Your task to perform on an android device: Search for logitech g903 on bestbuy, select the first entry, and add it to the cart. Image 0: 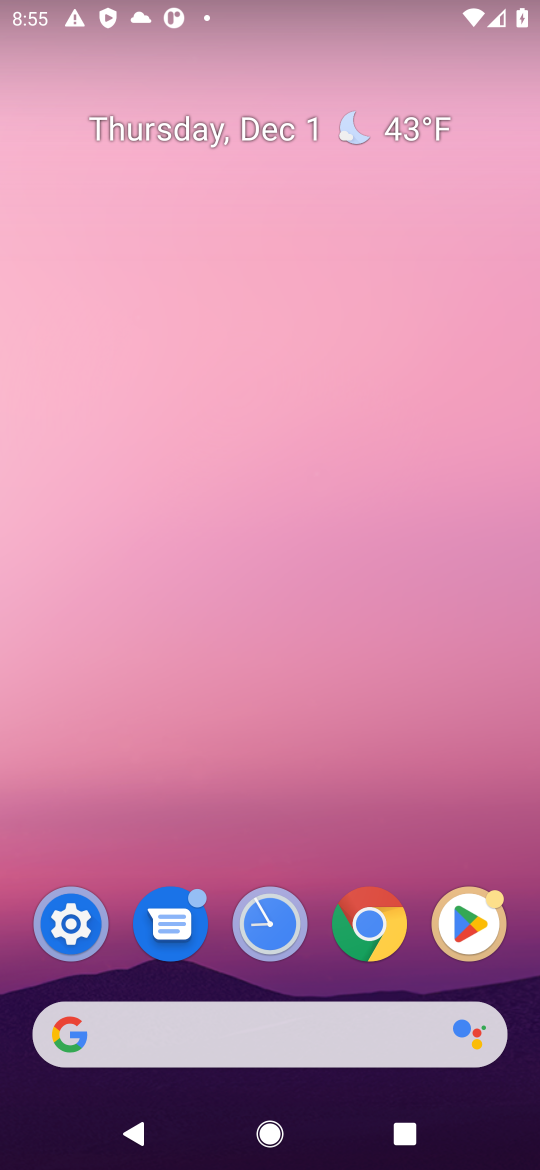
Step 0: click (367, 1019)
Your task to perform on an android device: Search for logitech g903 on bestbuy, select the first entry, and add it to the cart. Image 1: 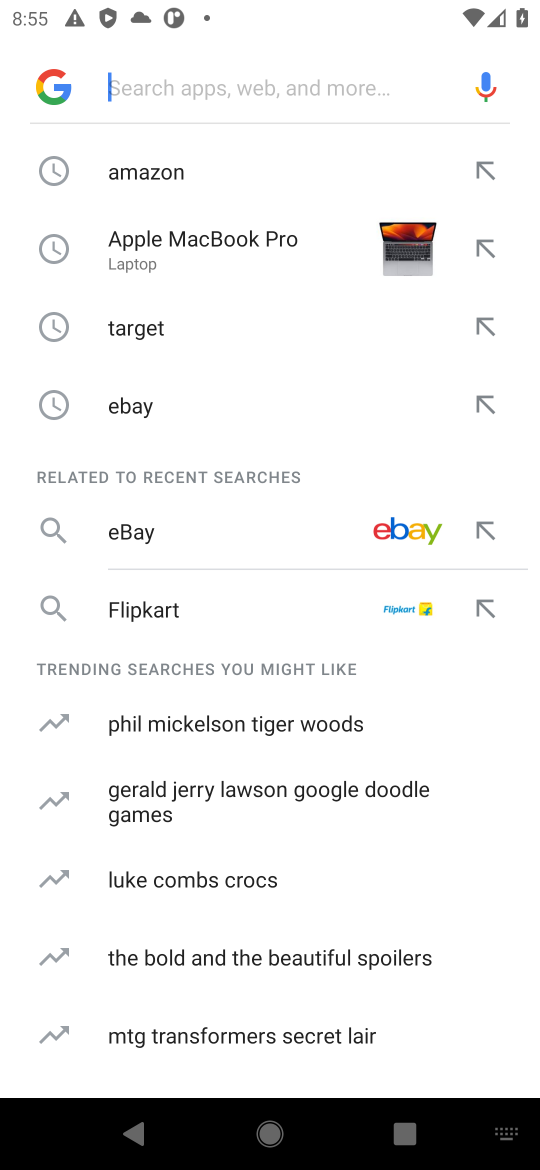
Step 1: type "bestbuy"
Your task to perform on an android device: Search for logitech g903 on bestbuy, select the first entry, and add it to the cart. Image 2: 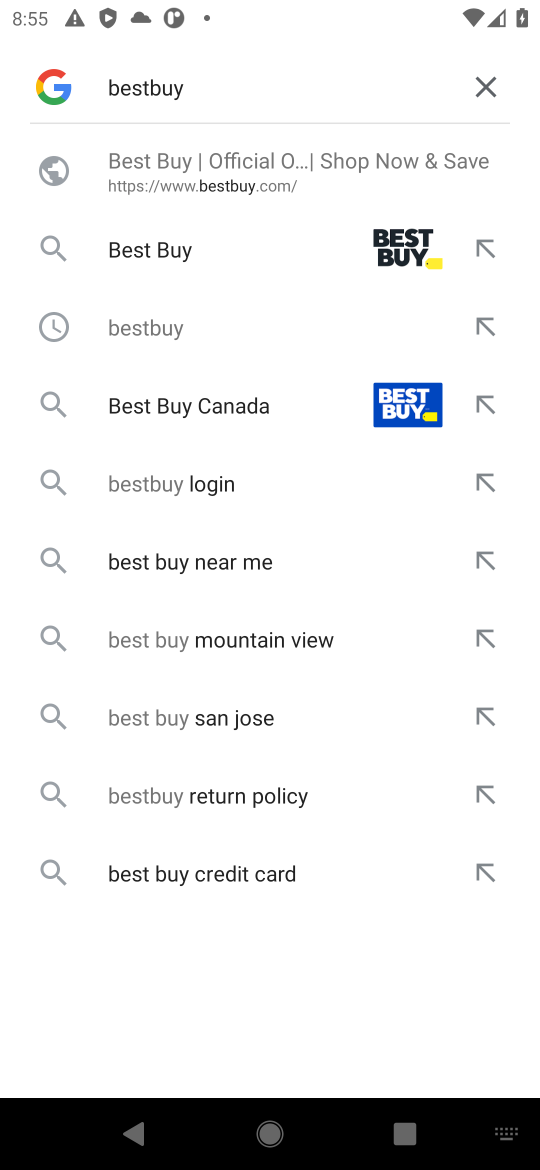
Step 2: click (244, 166)
Your task to perform on an android device: Search for logitech g903 on bestbuy, select the first entry, and add it to the cart. Image 3: 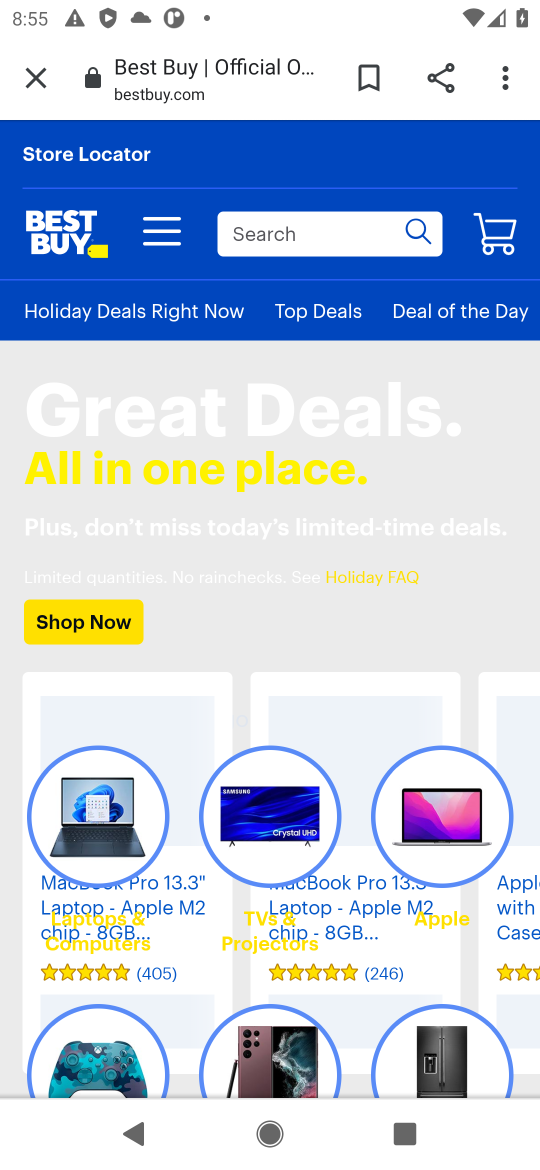
Step 3: click (266, 245)
Your task to perform on an android device: Search for logitech g903 on bestbuy, select the first entry, and add it to the cart. Image 4: 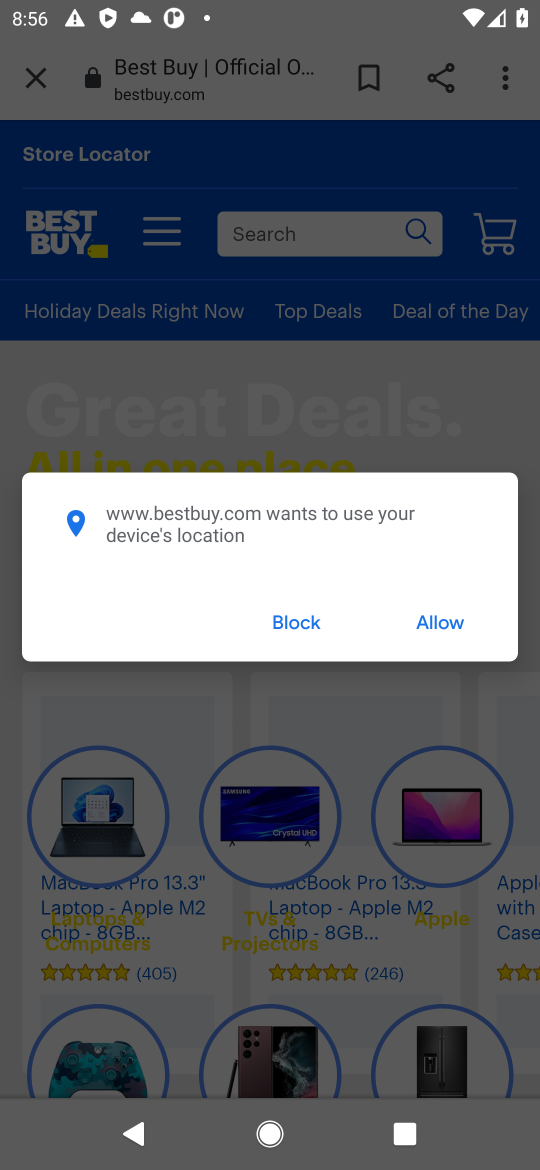
Step 4: click (295, 636)
Your task to perform on an android device: Search for logitech g903 on bestbuy, select the first entry, and add it to the cart. Image 5: 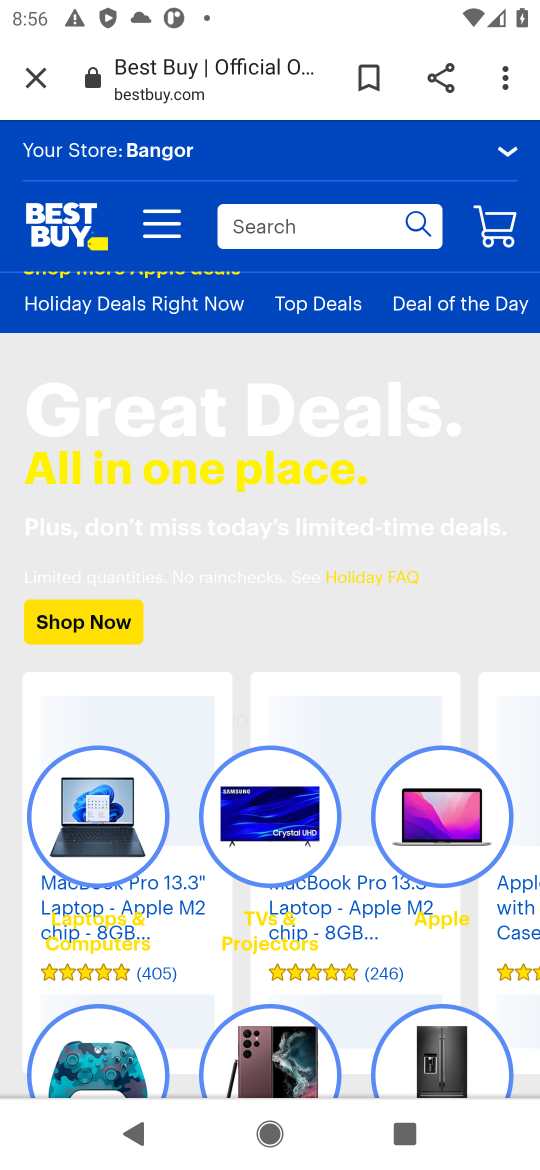
Step 5: click (269, 239)
Your task to perform on an android device: Search for logitech g903 on bestbuy, select the first entry, and add it to the cart. Image 6: 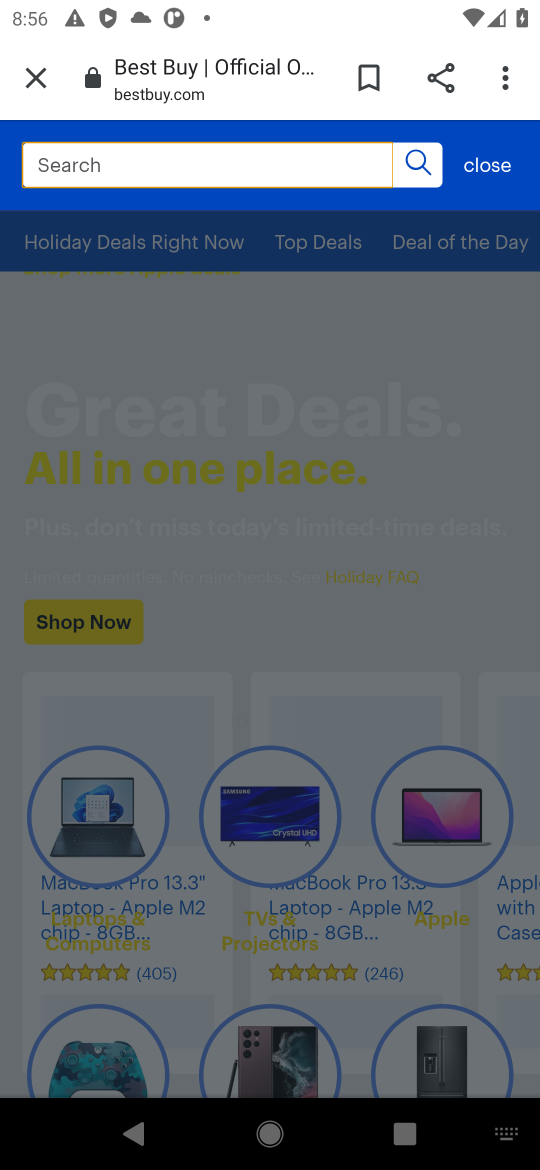
Step 6: type "logitech g903"
Your task to perform on an android device: Search for logitech g903 on bestbuy, select the first entry, and add it to the cart. Image 7: 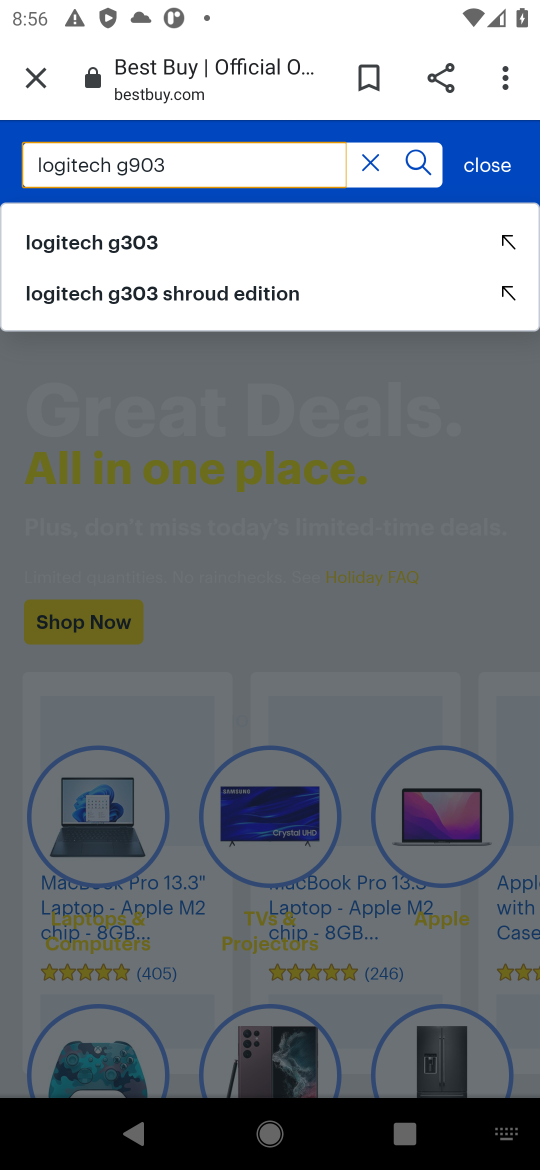
Step 7: click (433, 166)
Your task to perform on an android device: Search for logitech g903 on bestbuy, select the first entry, and add it to the cart. Image 8: 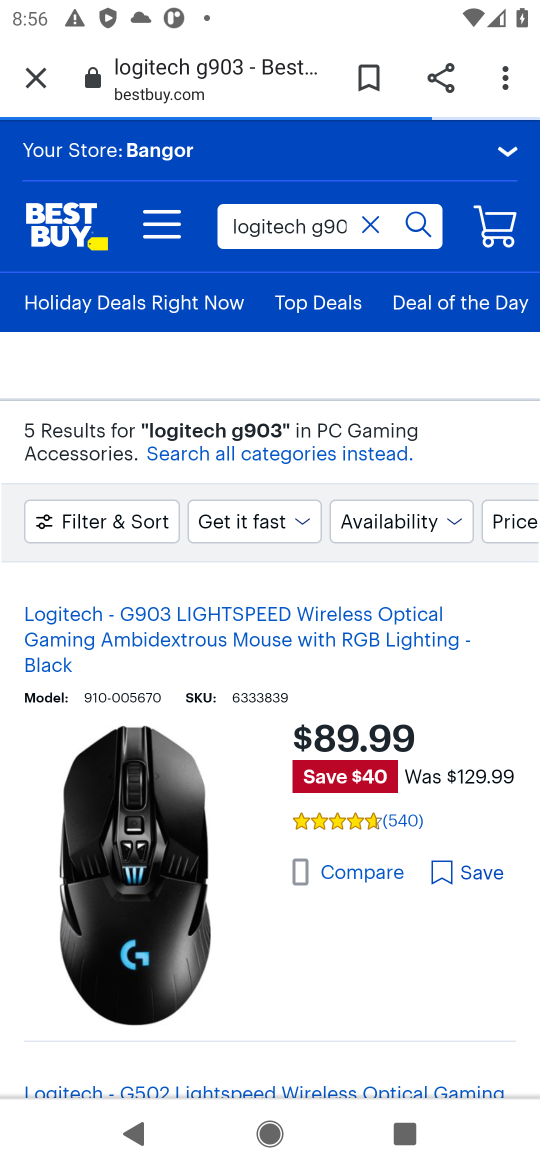
Step 8: drag from (240, 987) to (277, 512)
Your task to perform on an android device: Search for logitech g903 on bestbuy, select the first entry, and add it to the cart. Image 9: 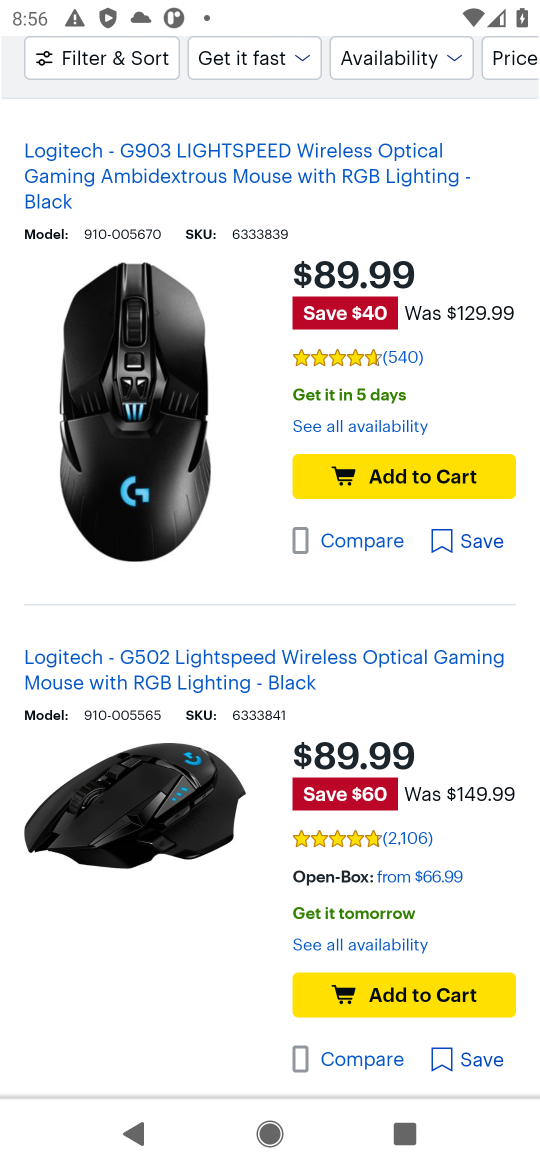
Step 9: click (428, 502)
Your task to perform on an android device: Search for logitech g903 on bestbuy, select the first entry, and add it to the cart. Image 10: 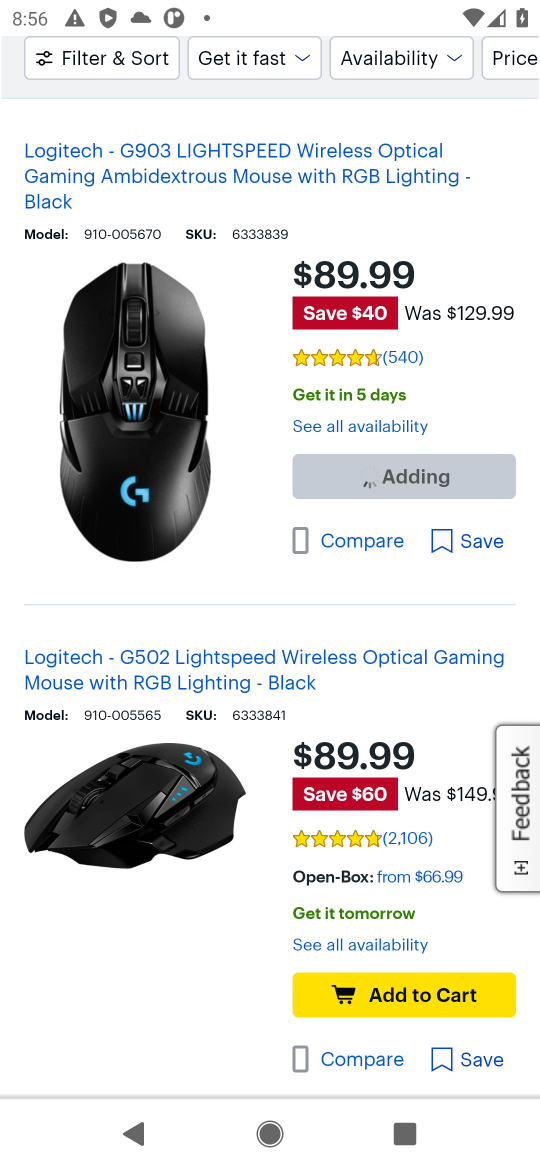
Step 10: task complete